Your task to perform on an android device: Go to accessibility settings Image 0: 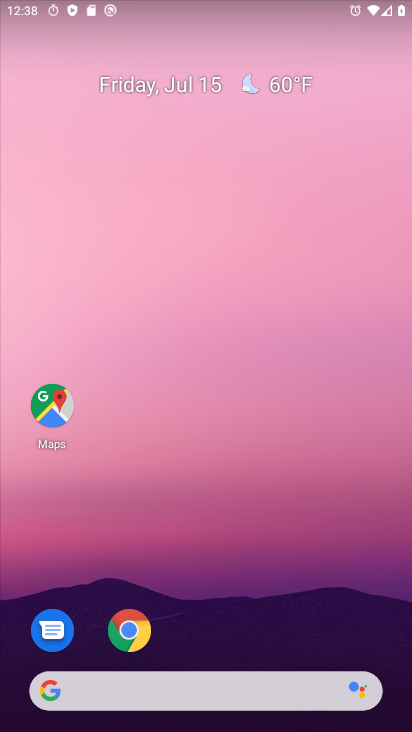
Step 0: drag from (184, 569) to (199, 17)
Your task to perform on an android device: Go to accessibility settings Image 1: 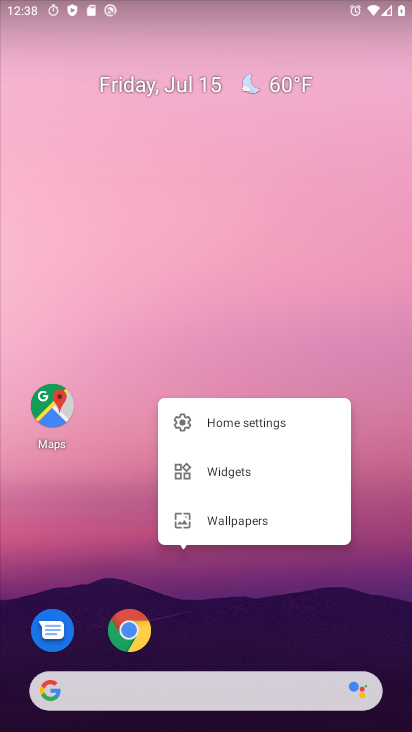
Step 1: click (203, 604)
Your task to perform on an android device: Go to accessibility settings Image 2: 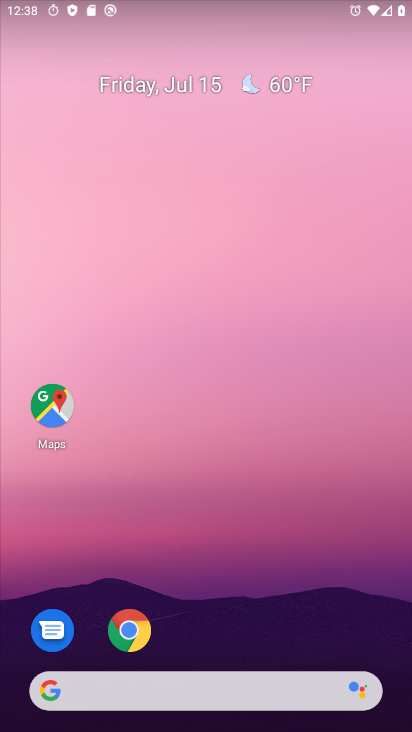
Step 2: drag from (203, 598) to (311, 5)
Your task to perform on an android device: Go to accessibility settings Image 3: 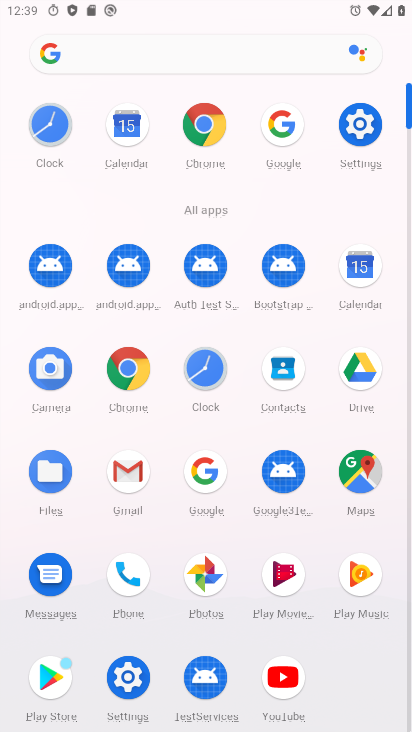
Step 3: click (357, 139)
Your task to perform on an android device: Go to accessibility settings Image 4: 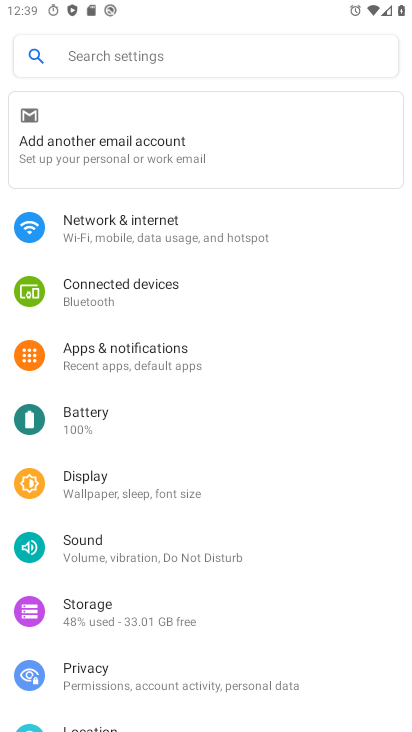
Step 4: drag from (143, 649) to (143, 235)
Your task to perform on an android device: Go to accessibility settings Image 5: 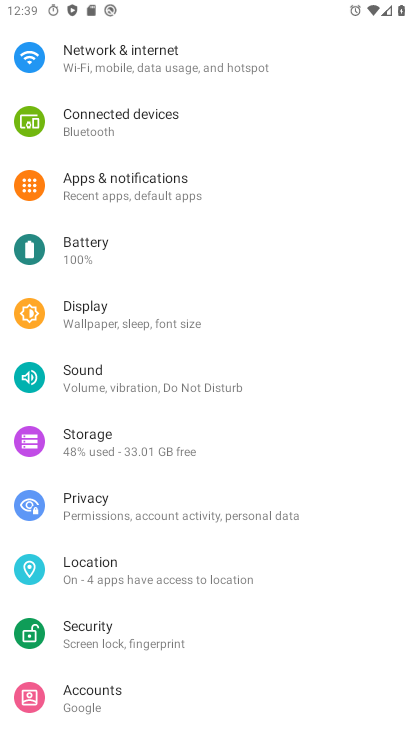
Step 5: drag from (124, 588) to (127, 427)
Your task to perform on an android device: Go to accessibility settings Image 6: 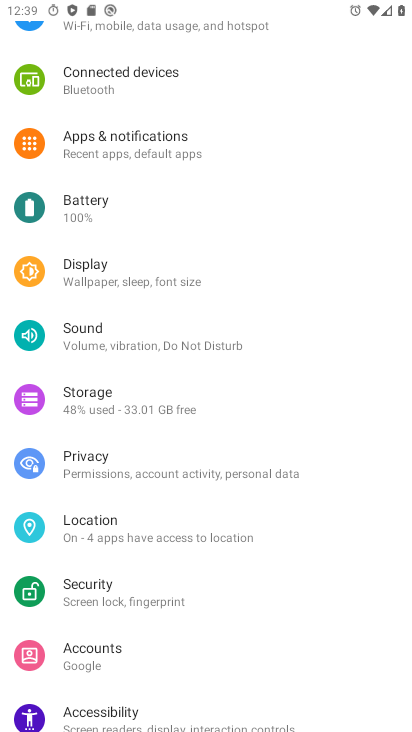
Step 6: click (91, 716)
Your task to perform on an android device: Go to accessibility settings Image 7: 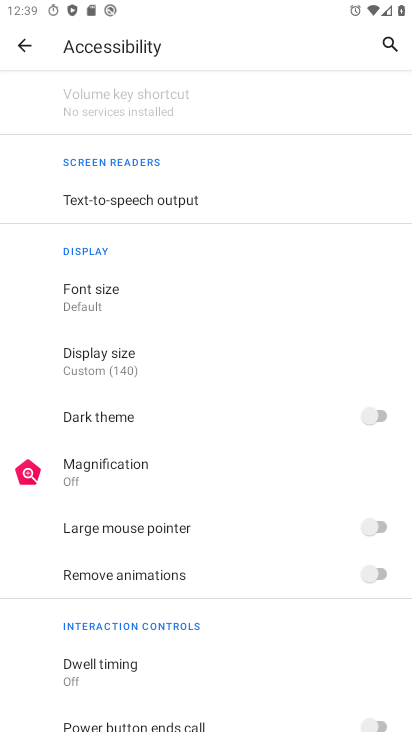
Step 7: task complete